Your task to perform on an android device: change the clock style Image 0: 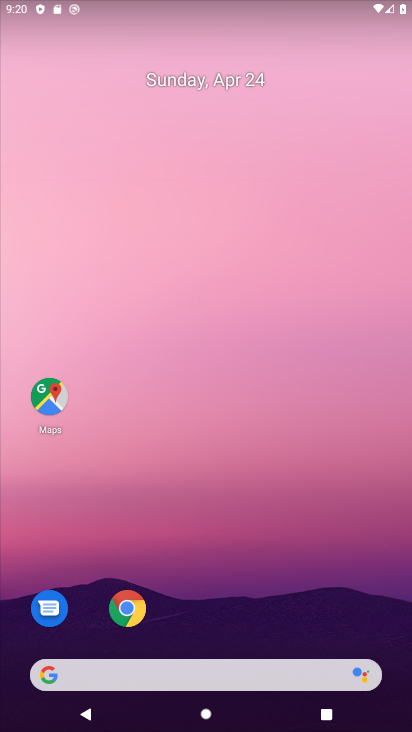
Step 0: press home button
Your task to perform on an android device: change the clock style Image 1: 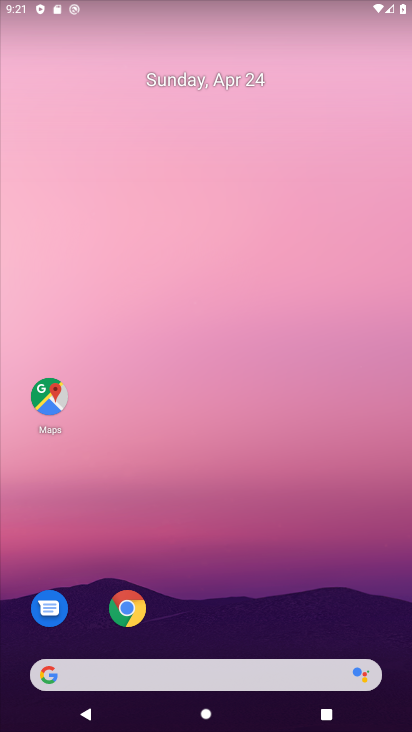
Step 1: drag from (277, 683) to (346, 172)
Your task to perform on an android device: change the clock style Image 2: 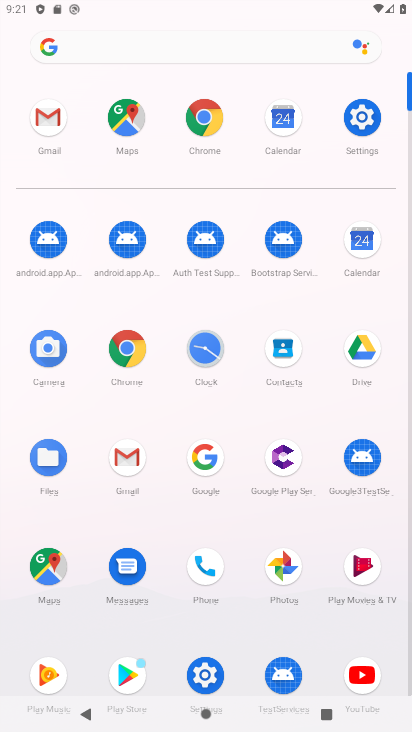
Step 2: click (209, 347)
Your task to perform on an android device: change the clock style Image 3: 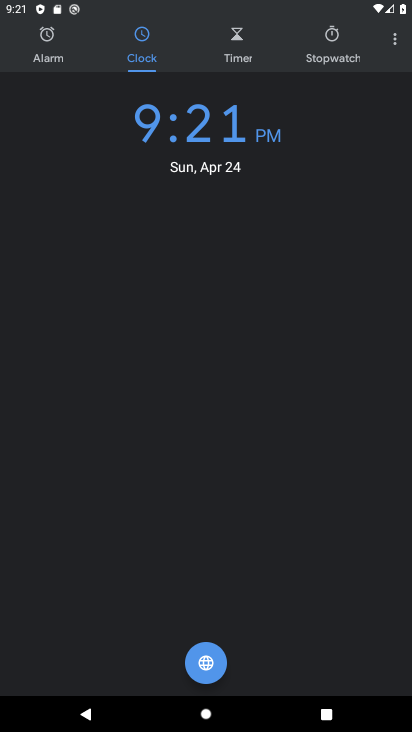
Step 3: click (390, 42)
Your task to perform on an android device: change the clock style Image 4: 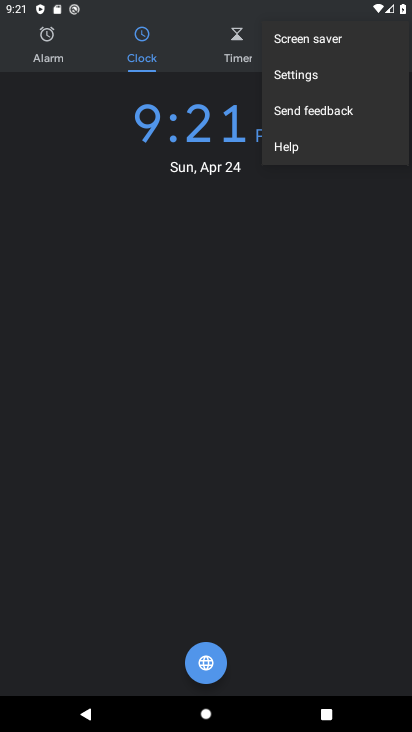
Step 4: click (295, 85)
Your task to perform on an android device: change the clock style Image 5: 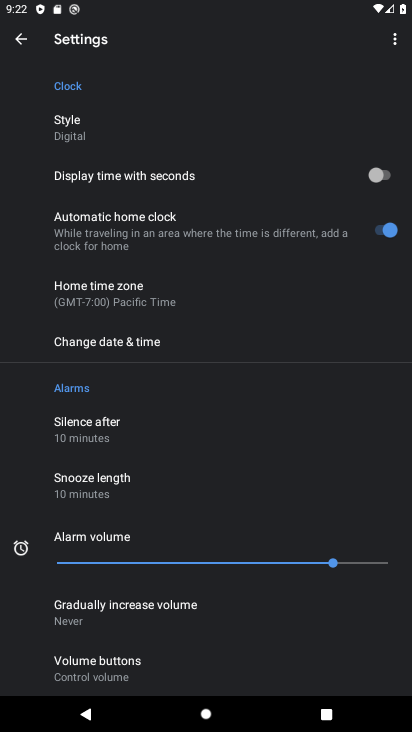
Step 5: click (136, 116)
Your task to perform on an android device: change the clock style Image 6: 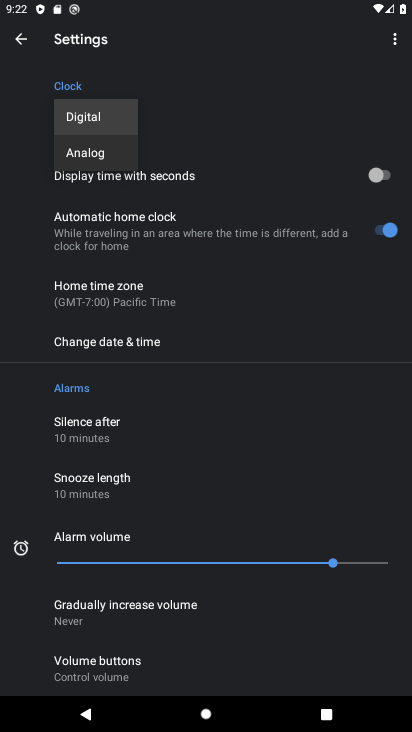
Step 6: click (105, 153)
Your task to perform on an android device: change the clock style Image 7: 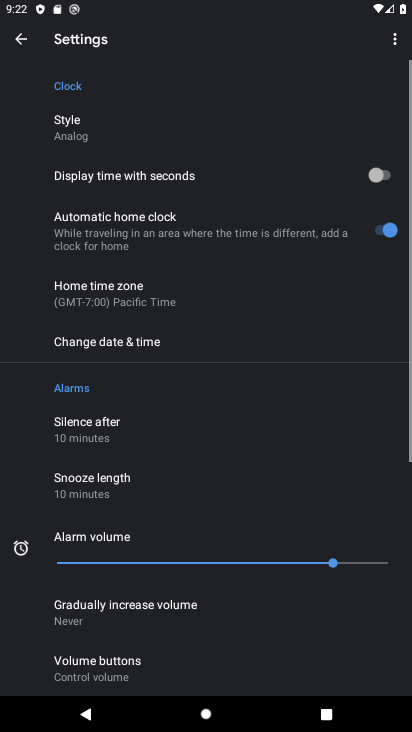
Step 7: task complete